Your task to perform on an android device: toggle location history Image 0: 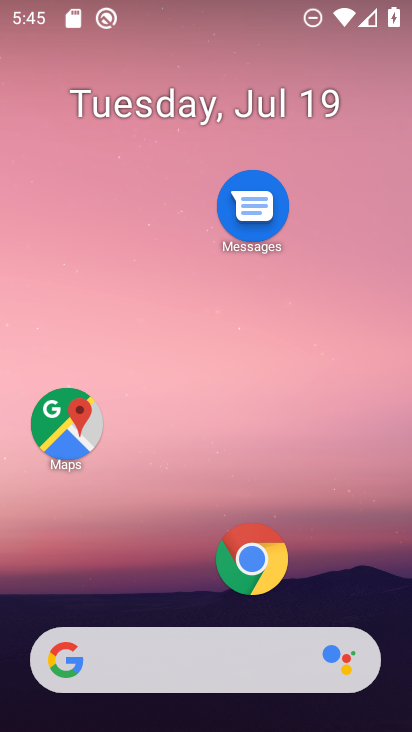
Step 0: drag from (165, 543) to (200, 7)
Your task to perform on an android device: toggle location history Image 1: 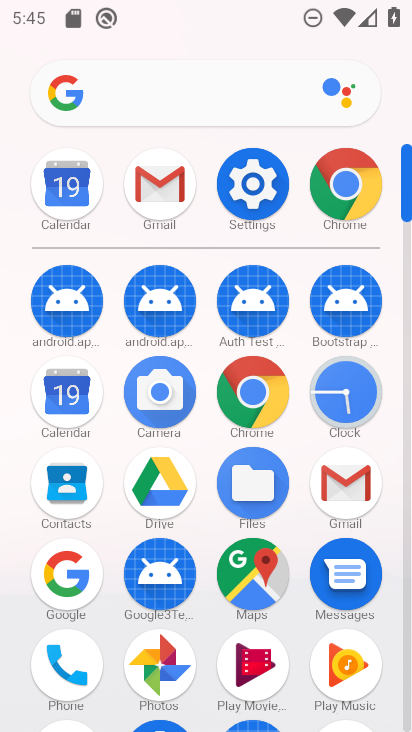
Step 1: click (258, 184)
Your task to perform on an android device: toggle location history Image 2: 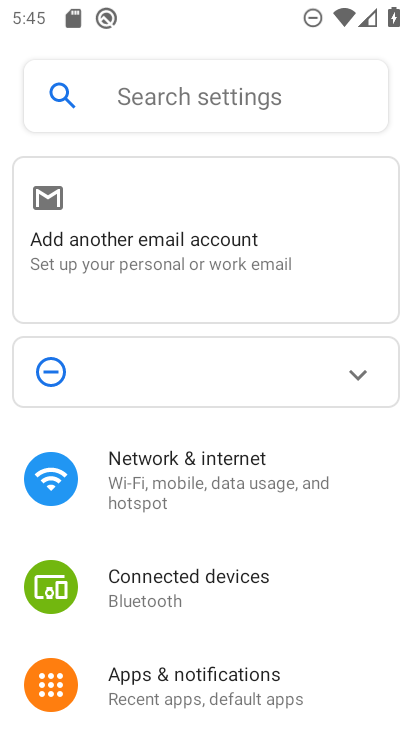
Step 2: drag from (199, 660) to (240, 36)
Your task to perform on an android device: toggle location history Image 3: 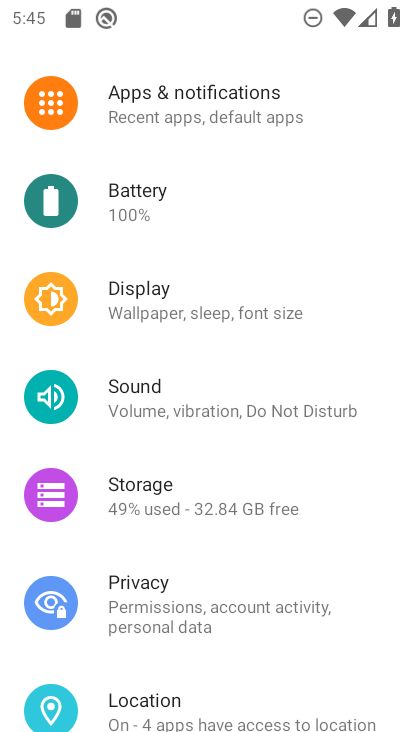
Step 3: click (155, 684)
Your task to perform on an android device: toggle location history Image 4: 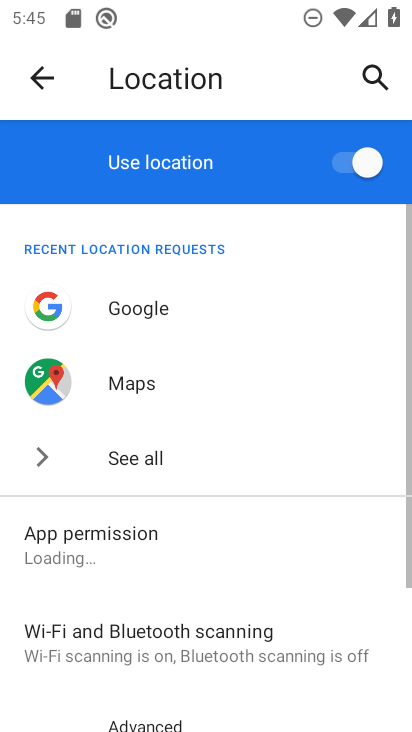
Step 4: drag from (145, 642) to (209, 85)
Your task to perform on an android device: toggle location history Image 5: 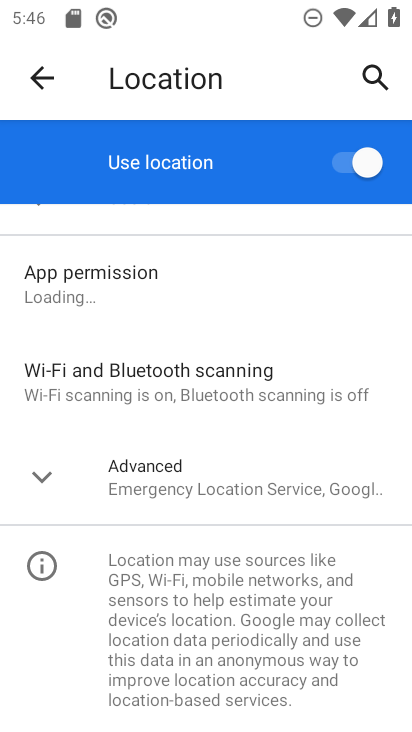
Step 5: click (162, 482)
Your task to perform on an android device: toggle location history Image 6: 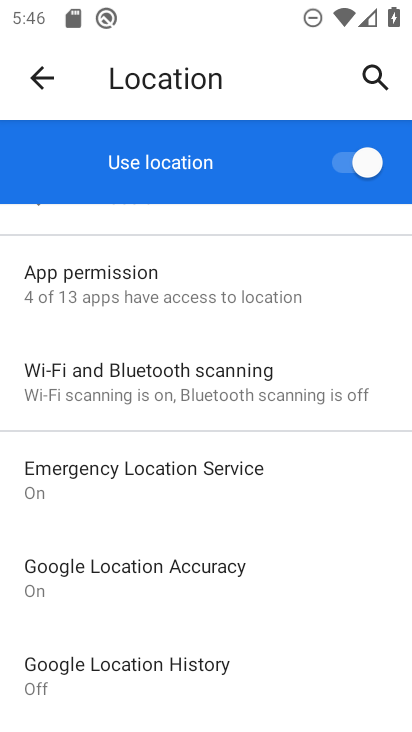
Step 6: click (130, 651)
Your task to perform on an android device: toggle location history Image 7: 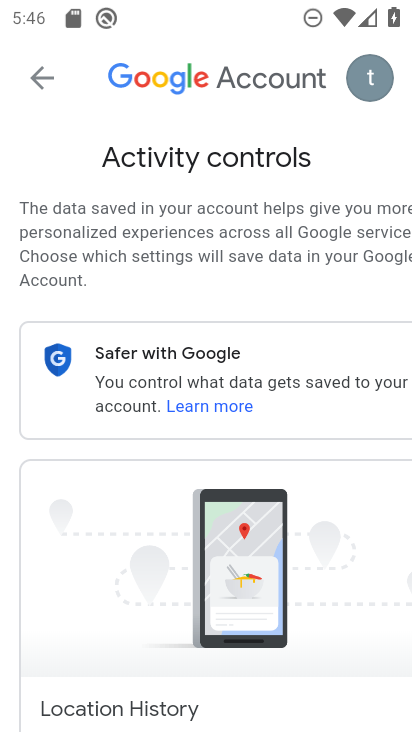
Step 7: drag from (280, 671) to (248, 104)
Your task to perform on an android device: toggle location history Image 8: 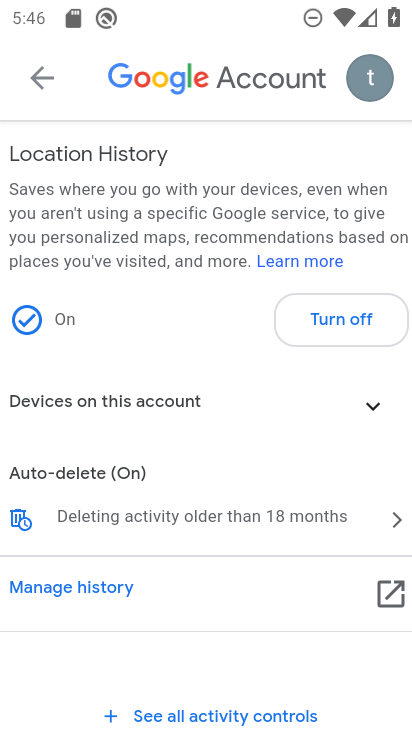
Step 8: click (350, 325)
Your task to perform on an android device: toggle location history Image 9: 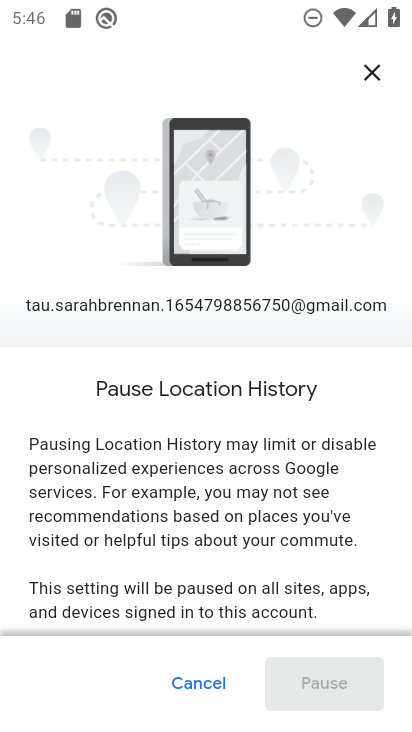
Step 9: drag from (173, 591) to (204, 76)
Your task to perform on an android device: toggle location history Image 10: 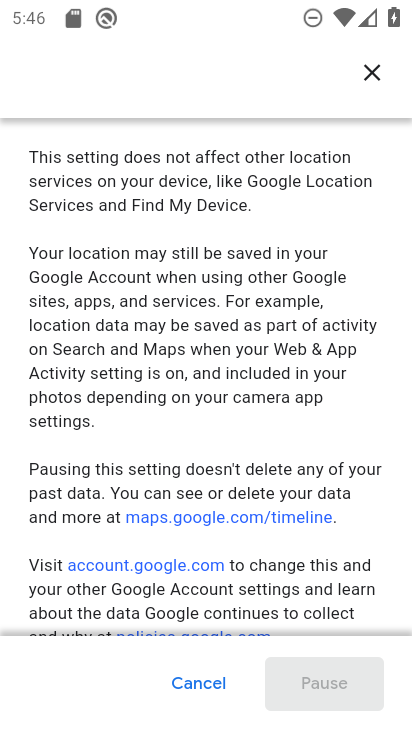
Step 10: drag from (276, 484) to (263, 6)
Your task to perform on an android device: toggle location history Image 11: 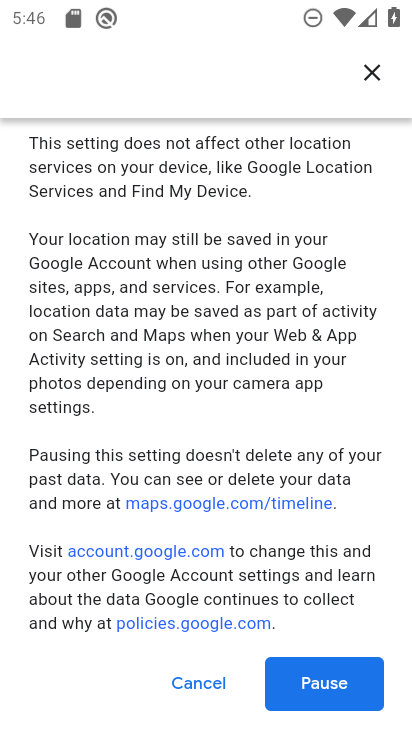
Step 11: drag from (223, 616) to (245, 197)
Your task to perform on an android device: toggle location history Image 12: 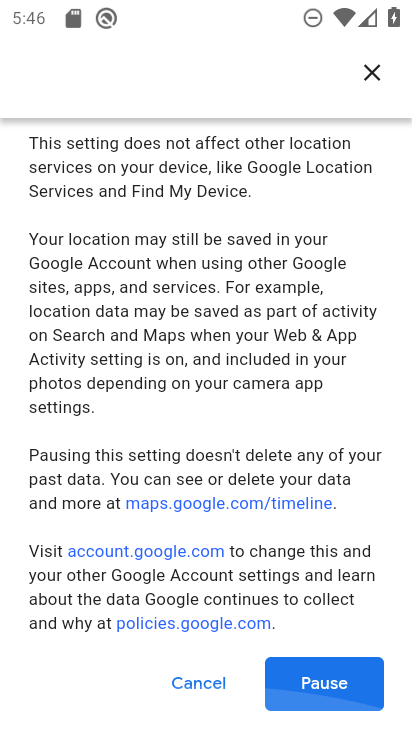
Step 12: click (329, 669)
Your task to perform on an android device: toggle location history Image 13: 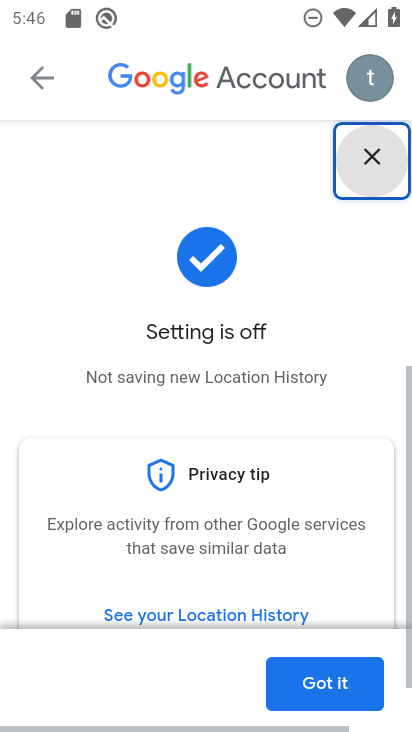
Step 13: task complete